Your task to perform on an android device: toggle data saver in the chrome app Image 0: 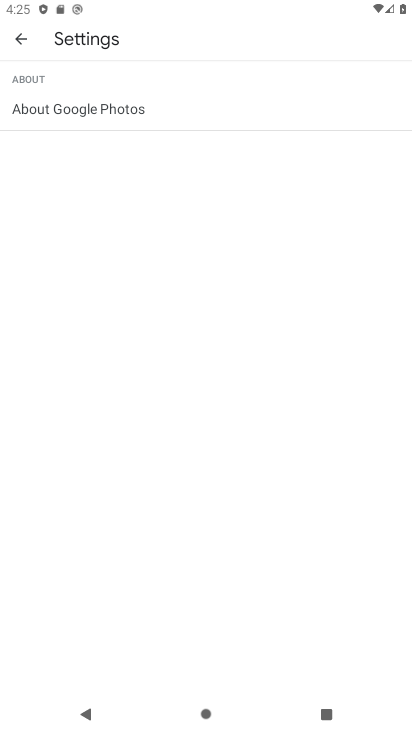
Step 0: press home button
Your task to perform on an android device: toggle data saver in the chrome app Image 1: 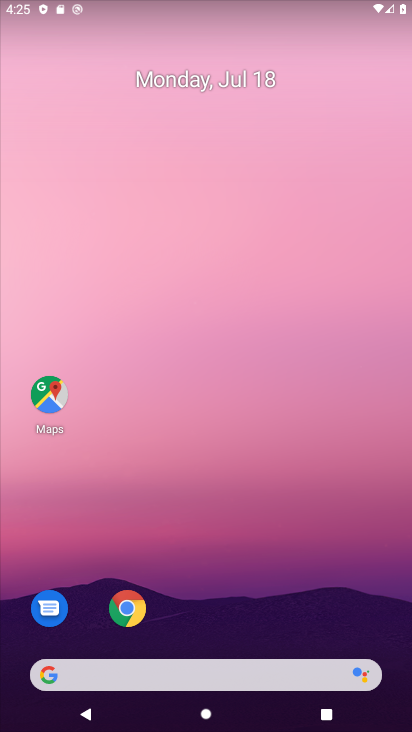
Step 1: click (344, 27)
Your task to perform on an android device: toggle data saver in the chrome app Image 2: 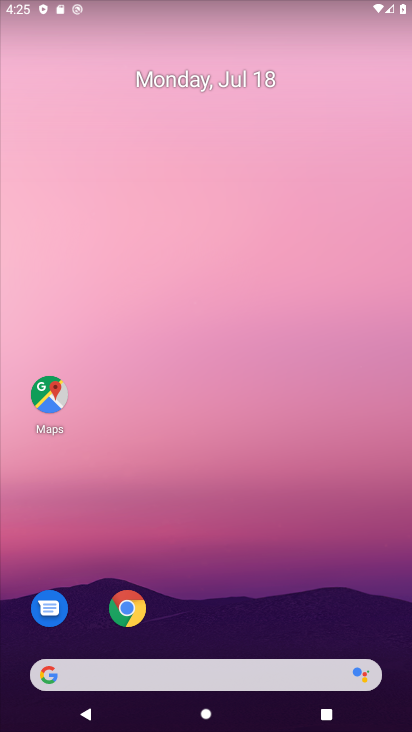
Step 2: click (127, 604)
Your task to perform on an android device: toggle data saver in the chrome app Image 3: 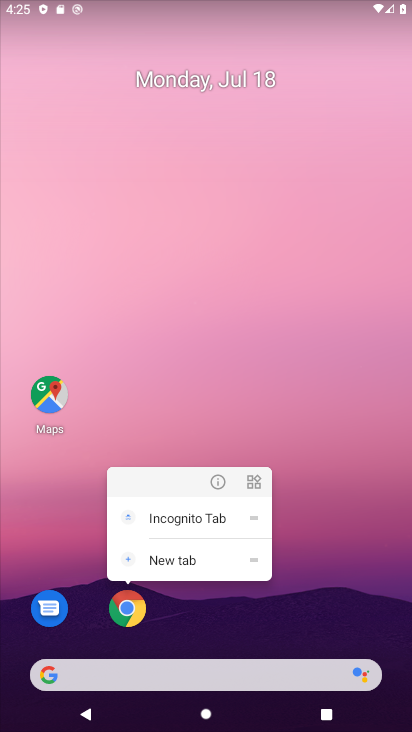
Step 3: click (144, 621)
Your task to perform on an android device: toggle data saver in the chrome app Image 4: 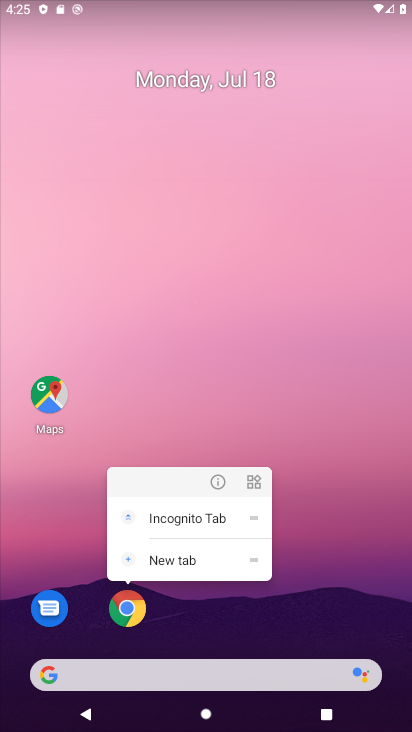
Step 4: task complete